Your task to perform on an android device: snooze an email in the gmail app Image 0: 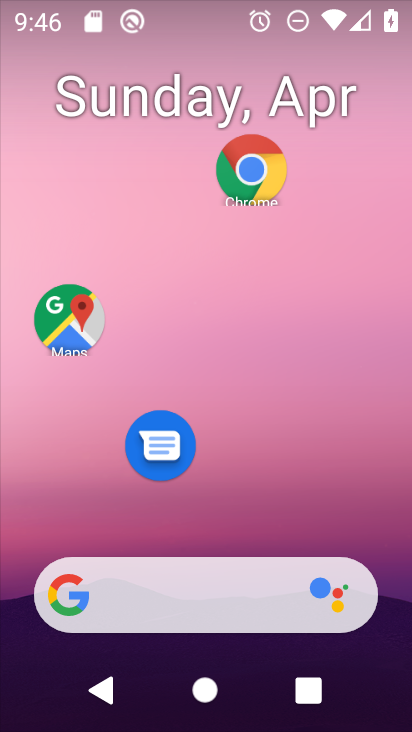
Step 0: drag from (258, 422) to (270, 87)
Your task to perform on an android device: snooze an email in the gmail app Image 1: 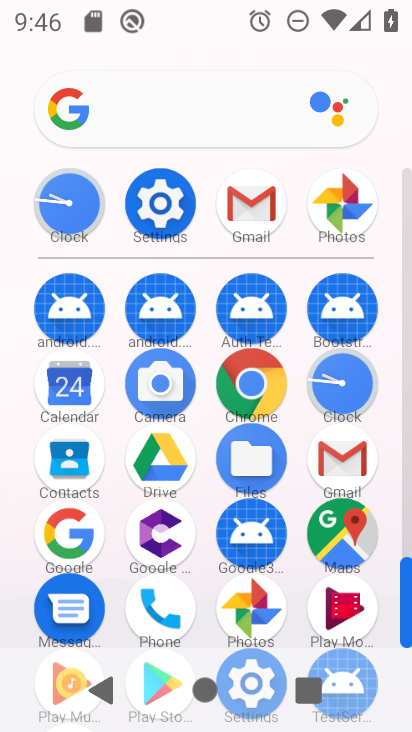
Step 1: click (260, 214)
Your task to perform on an android device: snooze an email in the gmail app Image 2: 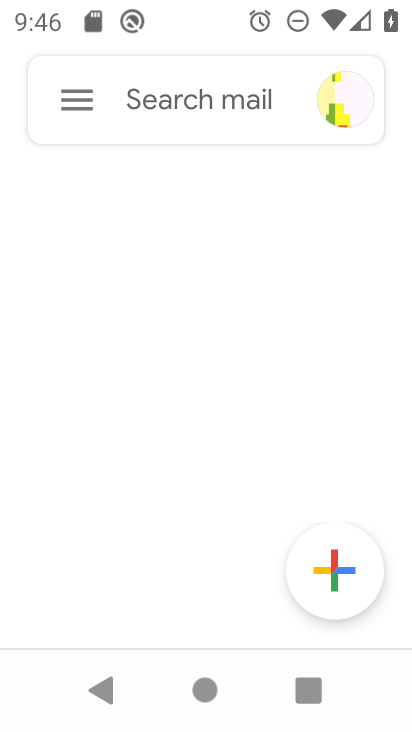
Step 2: click (78, 97)
Your task to perform on an android device: snooze an email in the gmail app Image 3: 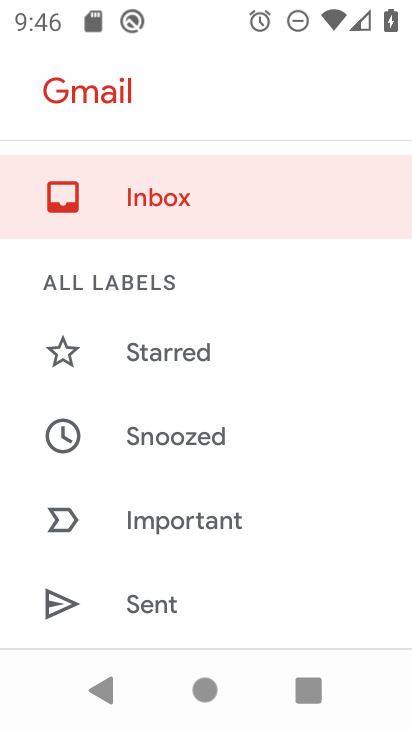
Step 3: drag from (263, 513) to (253, 150)
Your task to perform on an android device: snooze an email in the gmail app Image 4: 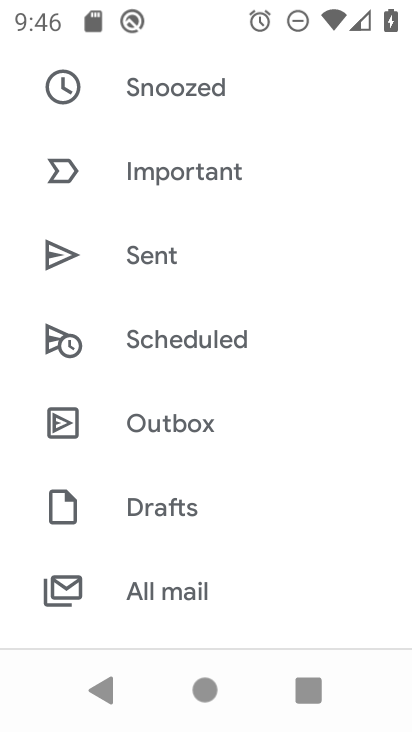
Step 4: click (177, 583)
Your task to perform on an android device: snooze an email in the gmail app Image 5: 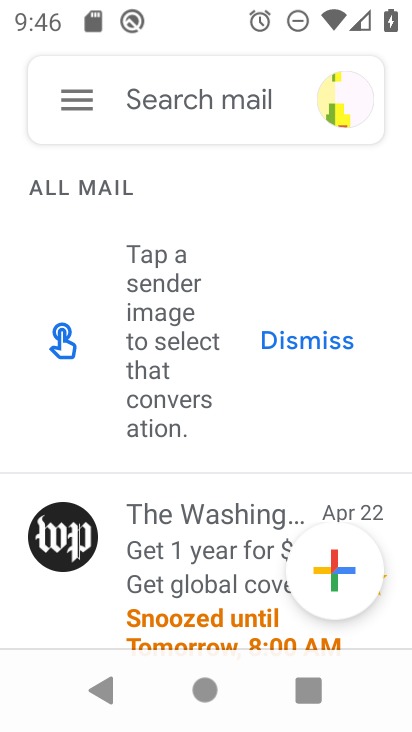
Step 5: click (205, 564)
Your task to perform on an android device: snooze an email in the gmail app Image 6: 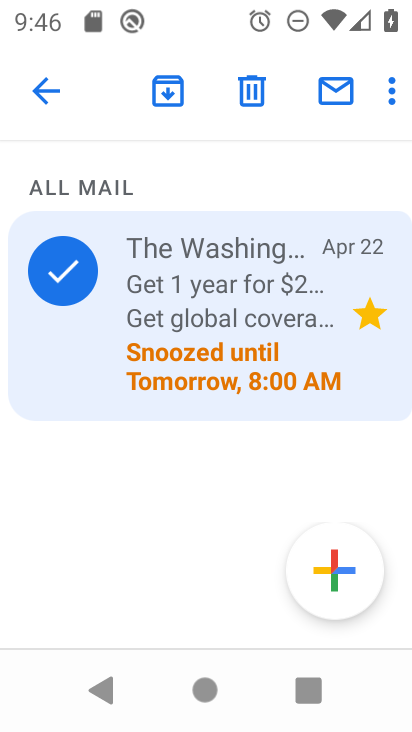
Step 6: click (384, 100)
Your task to perform on an android device: snooze an email in the gmail app Image 7: 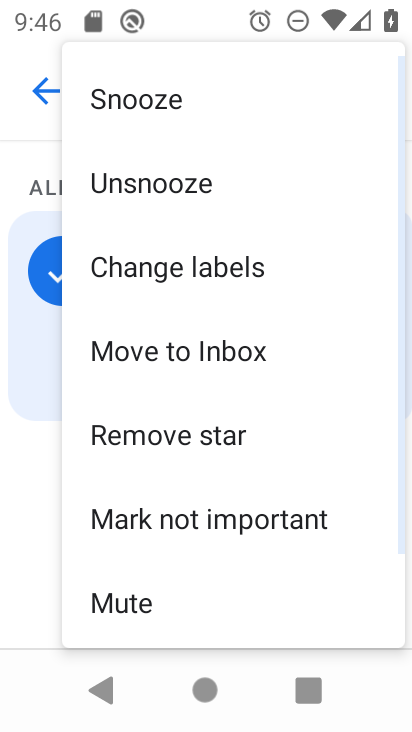
Step 7: click (152, 86)
Your task to perform on an android device: snooze an email in the gmail app Image 8: 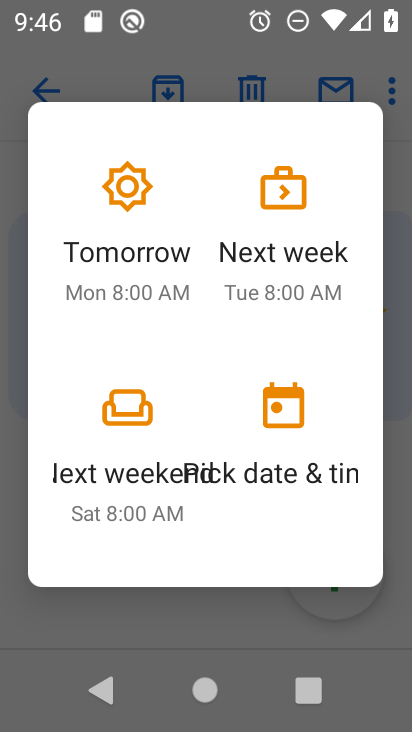
Step 8: click (147, 251)
Your task to perform on an android device: snooze an email in the gmail app Image 9: 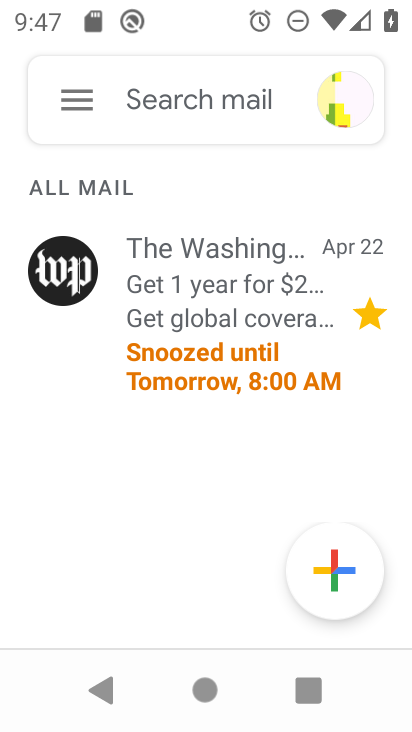
Step 9: task complete